Your task to perform on an android device: What's on my calendar tomorrow? Image 0: 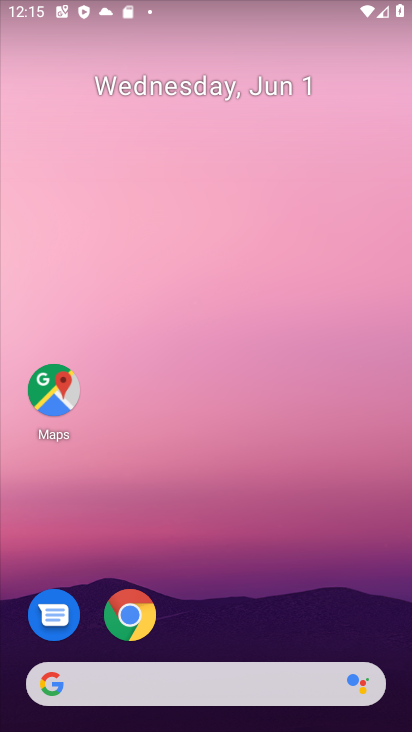
Step 0: task complete